Your task to perform on an android device: Open calendar and show me the second week of next month Image 0: 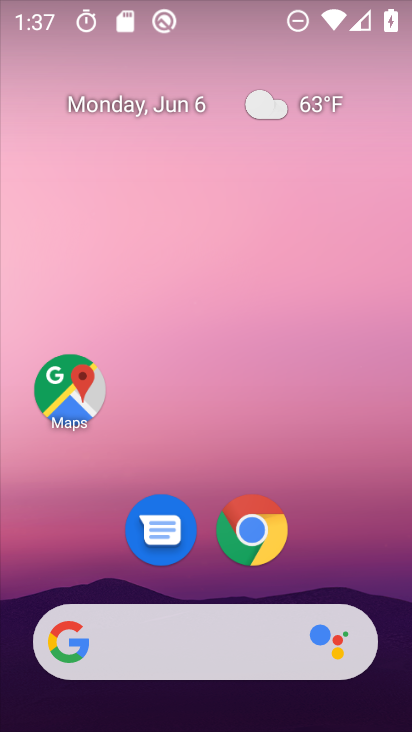
Step 0: drag from (341, 571) to (196, 140)
Your task to perform on an android device: Open calendar and show me the second week of next month Image 1: 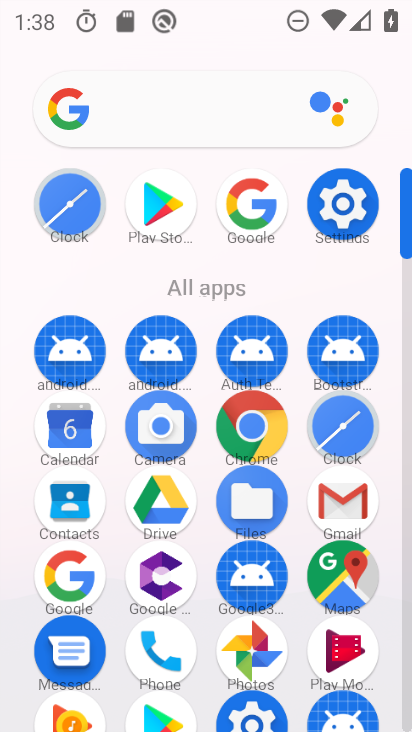
Step 1: click (72, 432)
Your task to perform on an android device: Open calendar and show me the second week of next month Image 2: 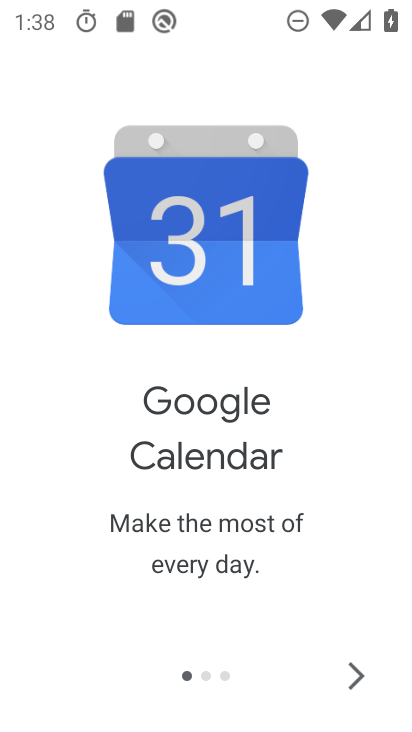
Step 2: click (360, 678)
Your task to perform on an android device: Open calendar and show me the second week of next month Image 3: 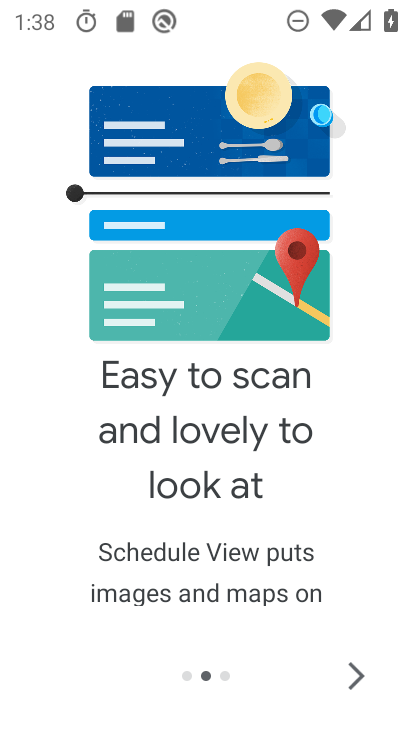
Step 3: click (360, 678)
Your task to perform on an android device: Open calendar and show me the second week of next month Image 4: 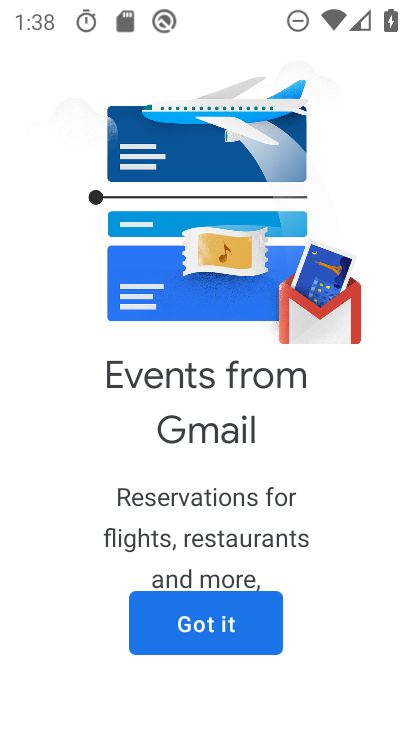
Step 4: click (224, 623)
Your task to perform on an android device: Open calendar and show me the second week of next month Image 5: 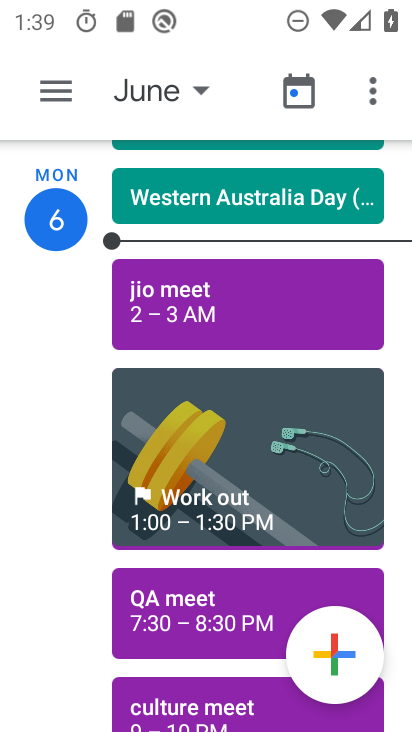
Step 5: click (295, 98)
Your task to perform on an android device: Open calendar and show me the second week of next month Image 6: 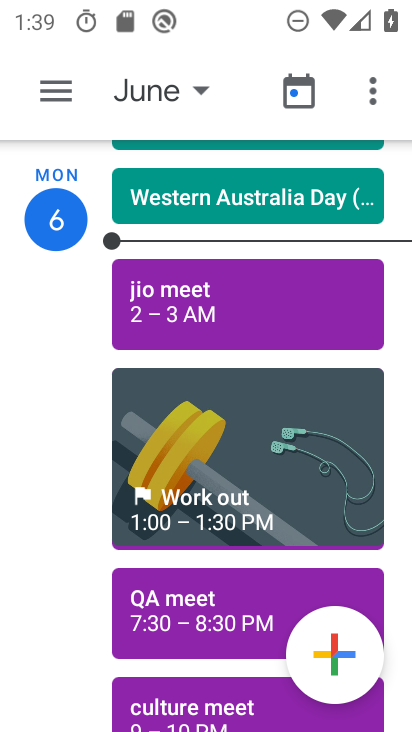
Step 6: click (203, 94)
Your task to perform on an android device: Open calendar and show me the second week of next month Image 7: 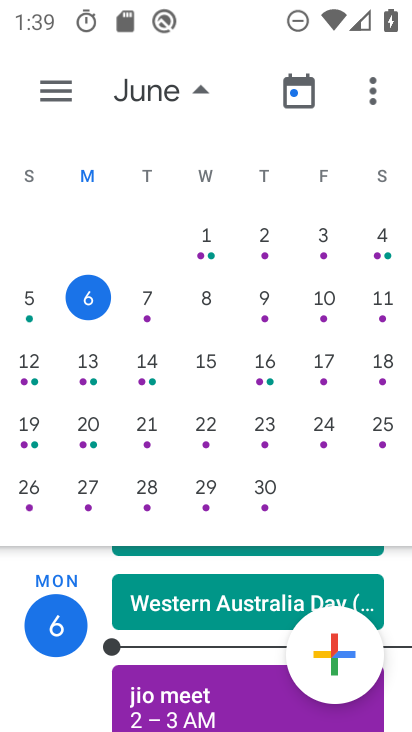
Step 7: drag from (309, 343) to (15, 429)
Your task to perform on an android device: Open calendar and show me the second week of next month Image 8: 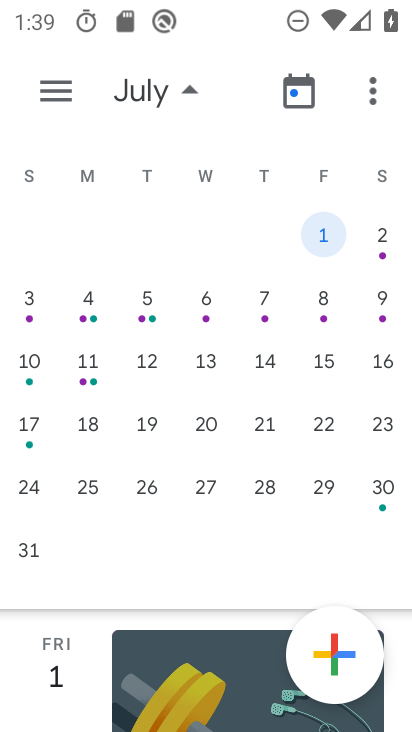
Step 8: click (92, 362)
Your task to perform on an android device: Open calendar and show me the second week of next month Image 9: 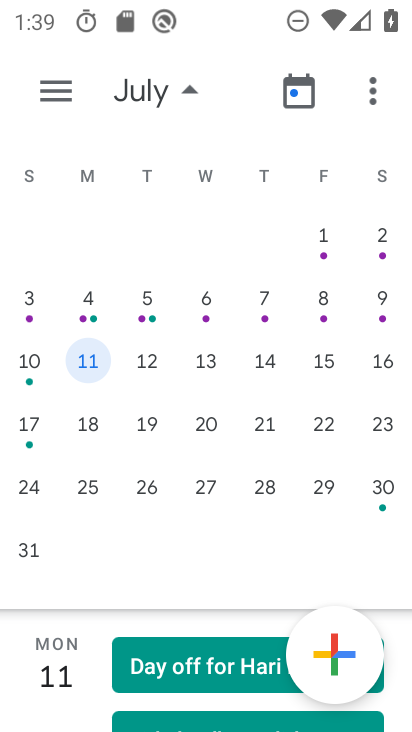
Step 9: click (56, 89)
Your task to perform on an android device: Open calendar and show me the second week of next month Image 10: 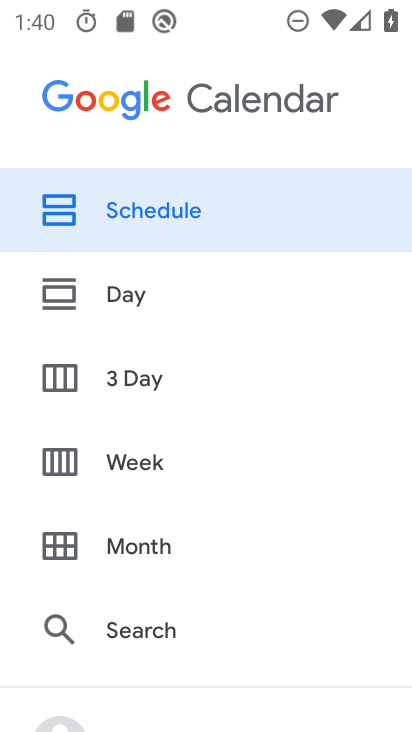
Step 10: click (148, 471)
Your task to perform on an android device: Open calendar and show me the second week of next month Image 11: 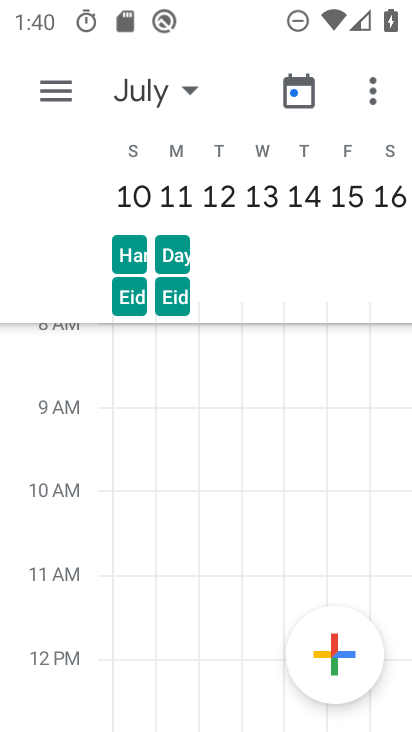
Step 11: task complete